Your task to perform on an android device: Add "razer thresher" to the cart on target.com, then select checkout. Image 0: 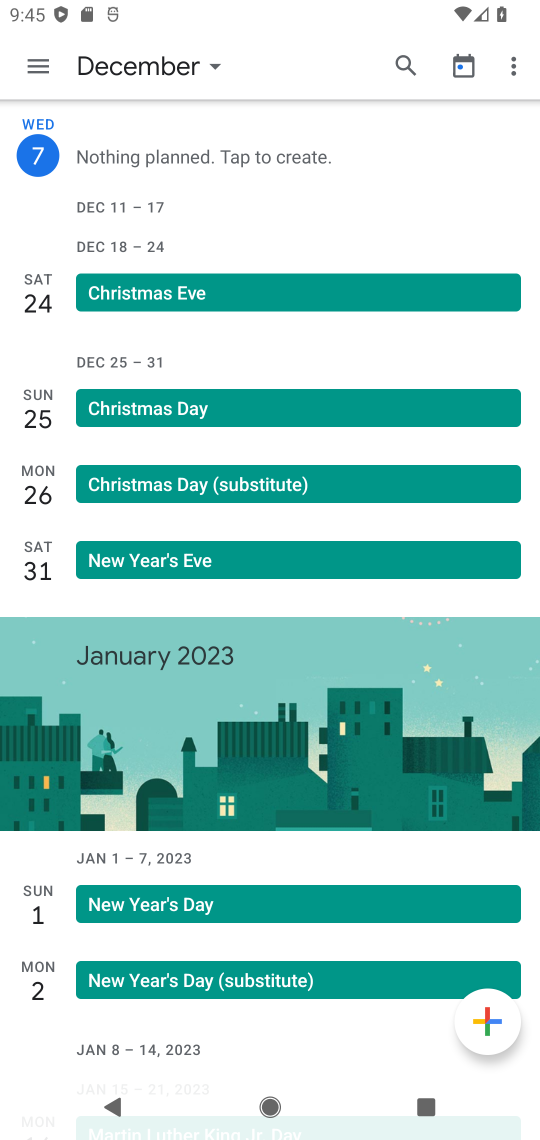
Step 0: press home button
Your task to perform on an android device: Add "razer thresher" to the cart on target.com, then select checkout. Image 1: 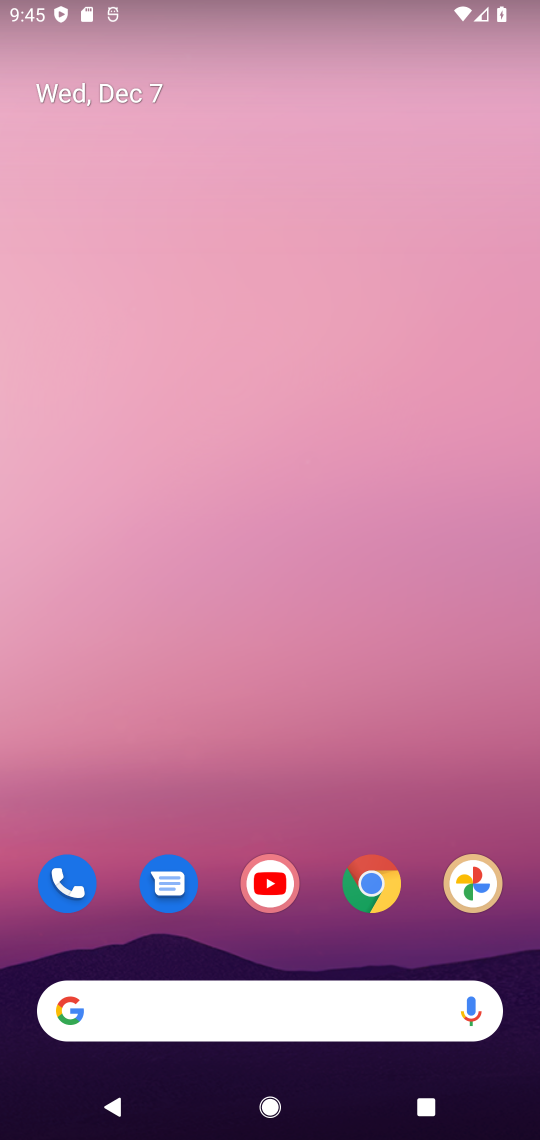
Step 1: click (296, 1025)
Your task to perform on an android device: Add "razer thresher" to the cart on target.com, then select checkout. Image 2: 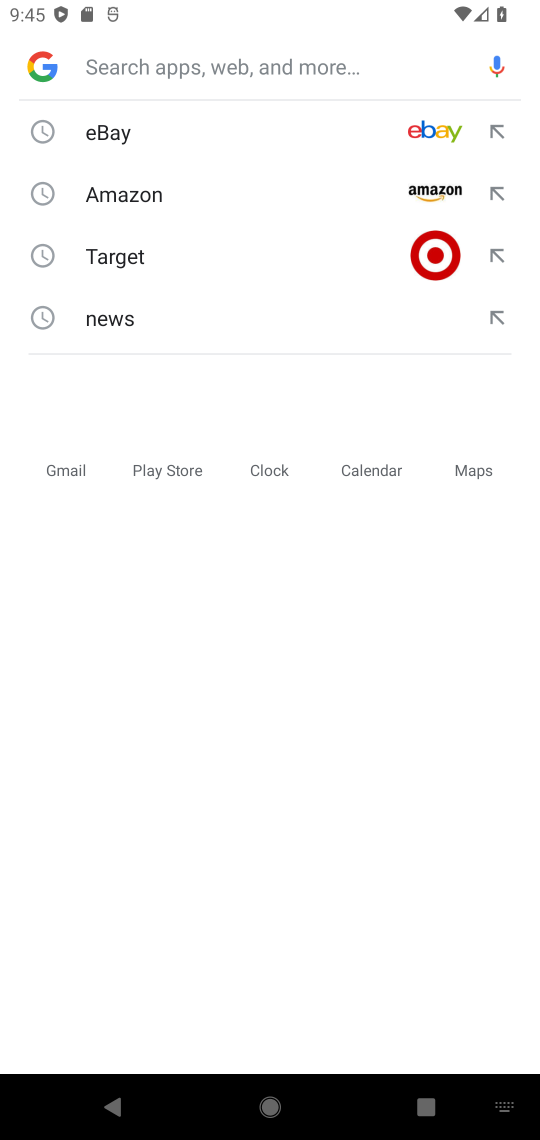
Step 2: click (148, 255)
Your task to perform on an android device: Add "razer thresher" to the cart on target.com, then select checkout. Image 3: 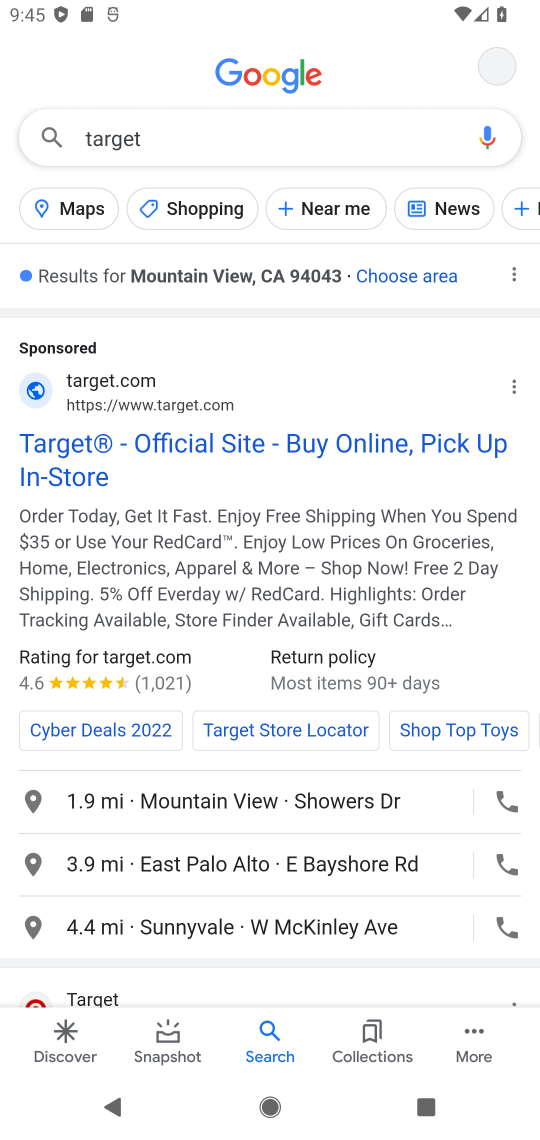
Step 3: click (167, 441)
Your task to perform on an android device: Add "razer thresher" to the cart on target.com, then select checkout. Image 4: 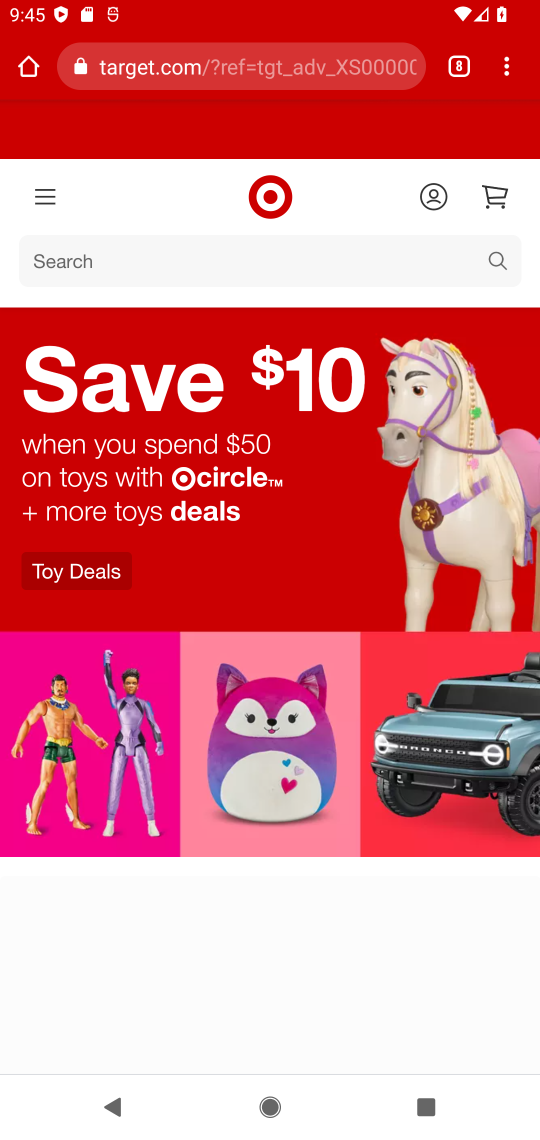
Step 4: click (225, 257)
Your task to perform on an android device: Add "razer thresher" to the cart on target.com, then select checkout. Image 5: 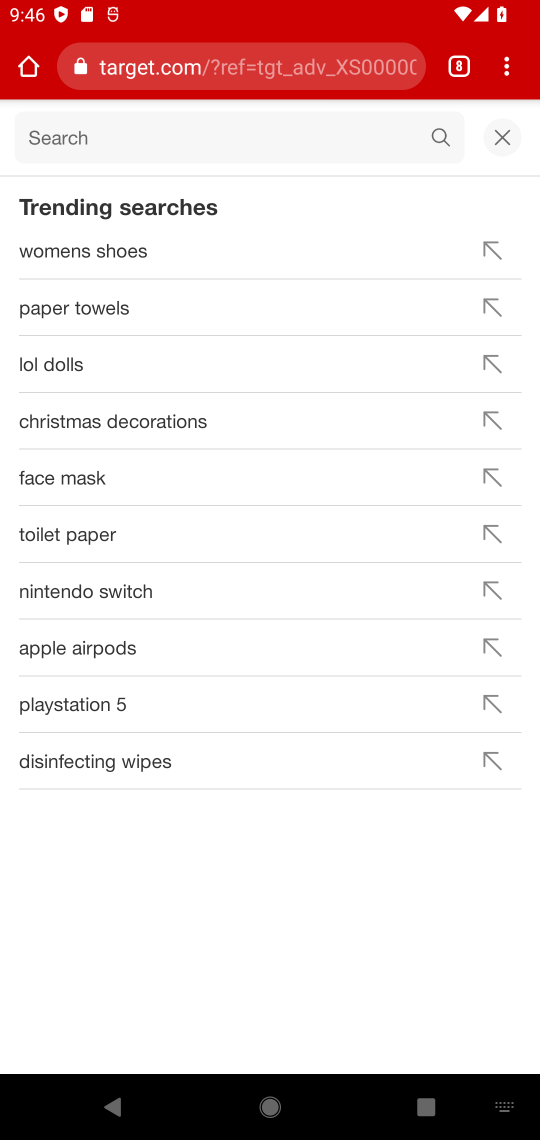
Step 5: type "razer thresher"
Your task to perform on an android device: Add "razer thresher" to the cart on target.com, then select checkout. Image 6: 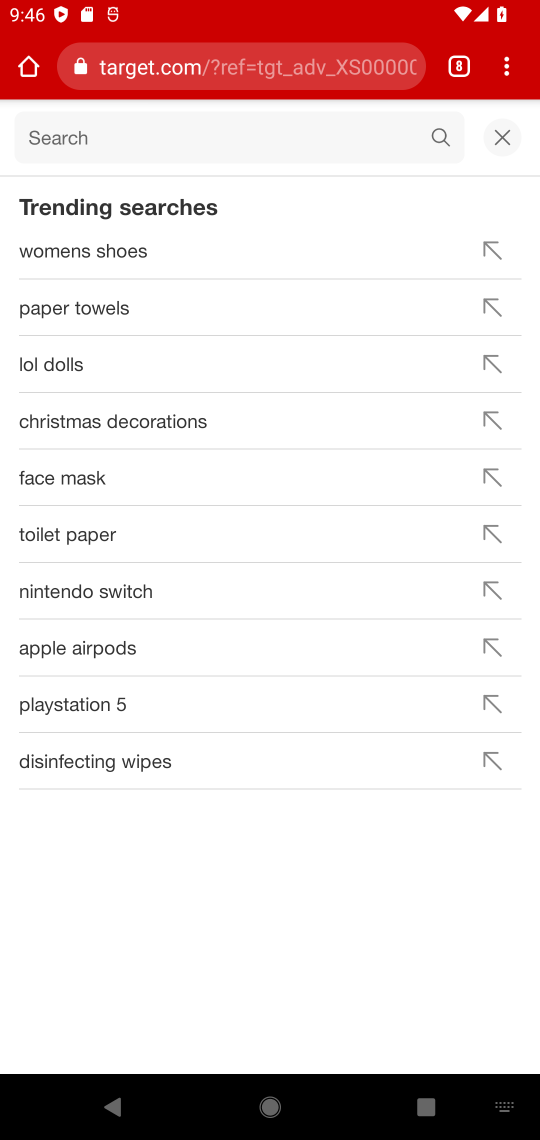
Step 6: click (435, 121)
Your task to perform on an android device: Add "razer thresher" to the cart on target.com, then select checkout. Image 7: 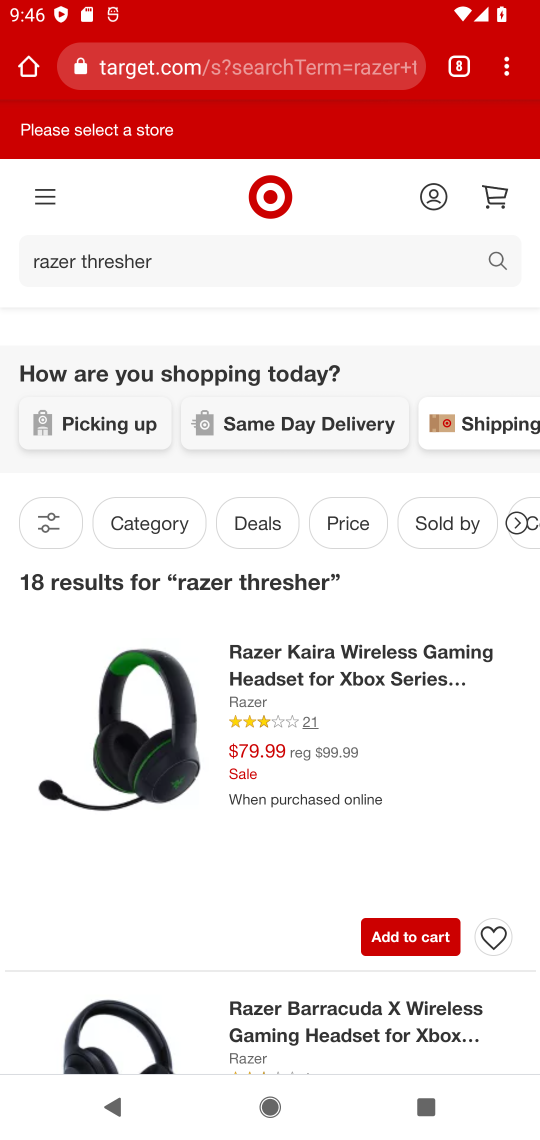
Step 7: click (391, 926)
Your task to perform on an android device: Add "razer thresher" to the cart on target.com, then select checkout. Image 8: 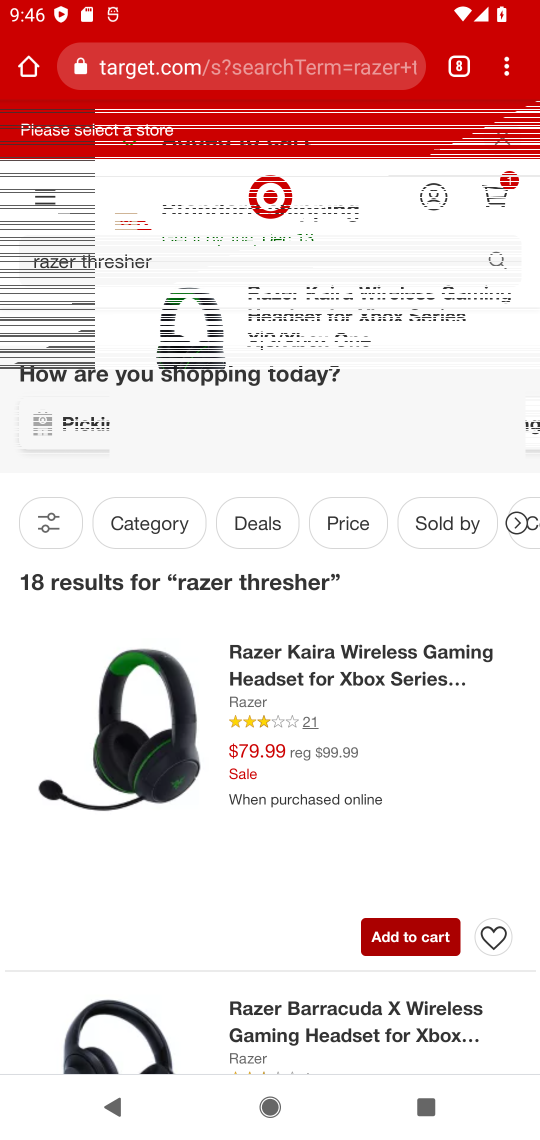
Step 8: click (504, 188)
Your task to perform on an android device: Add "razer thresher" to the cart on target.com, then select checkout. Image 9: 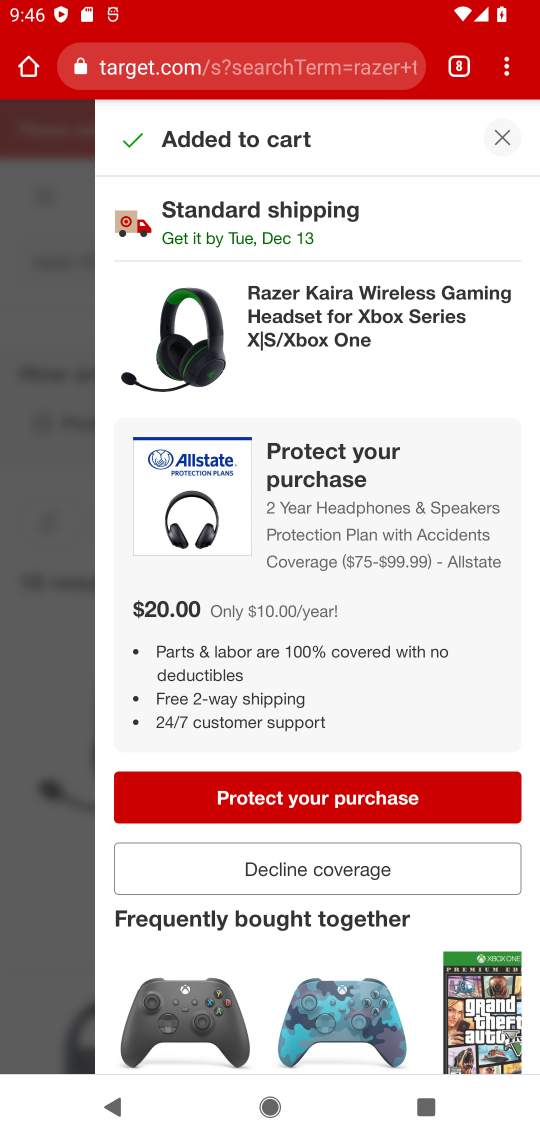
Step 9: click (494, 130)
Your task to perform on an android device: Add "razer thresher" to the cart on target.com, then select checkout. Image 10: 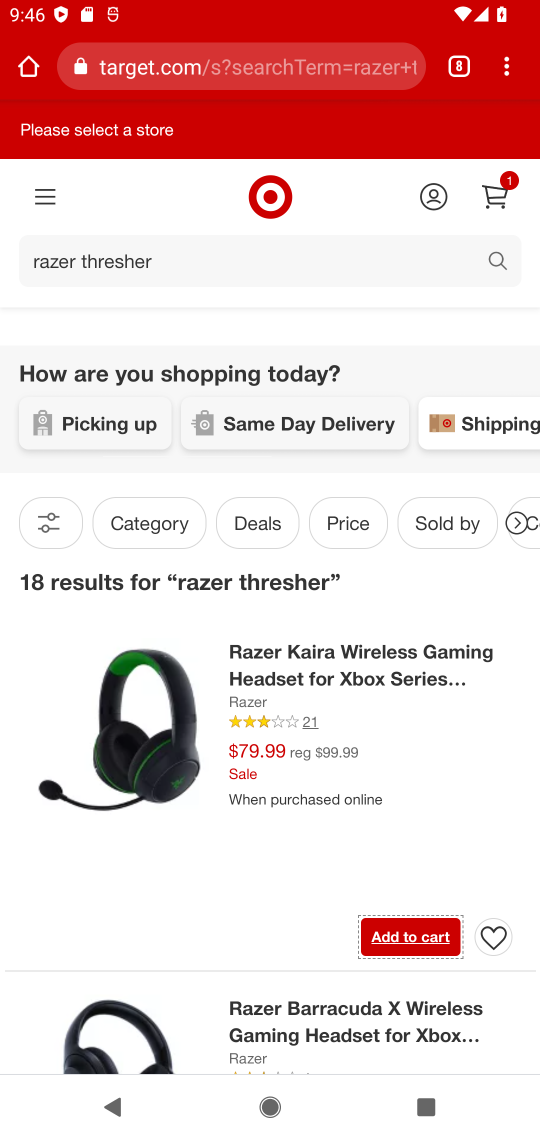
Step 10: click (504, 192)
Your task to perform on an android device: Add "razer thresher" to the cart on target.com, then select checkout. Image 11: 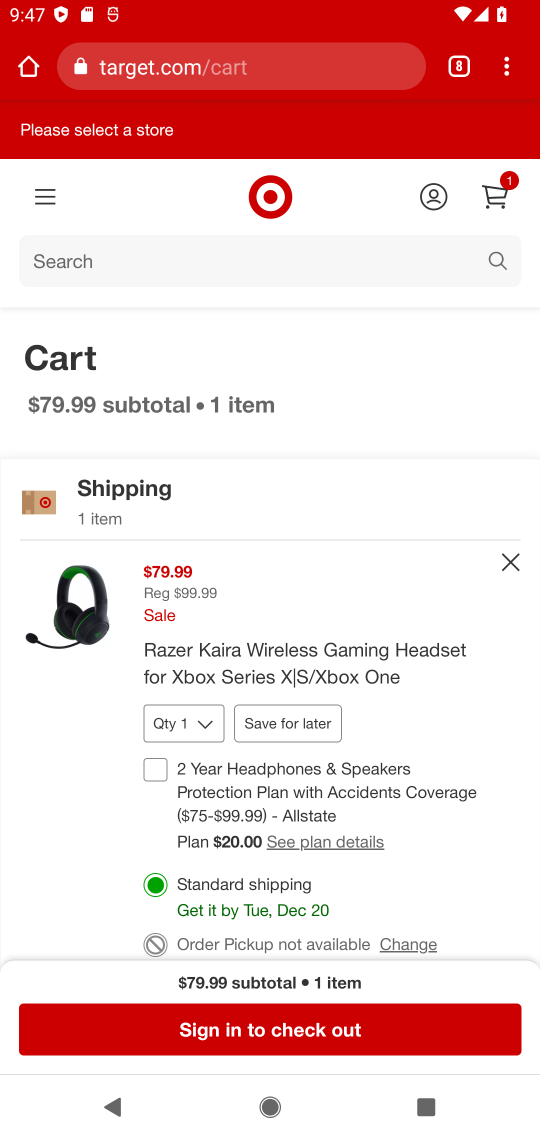
Step 11: click (249, 1030)
Your task to perform on an android device: Add "razer thresher" to the cart on target.com, then select checkout. Image 12: 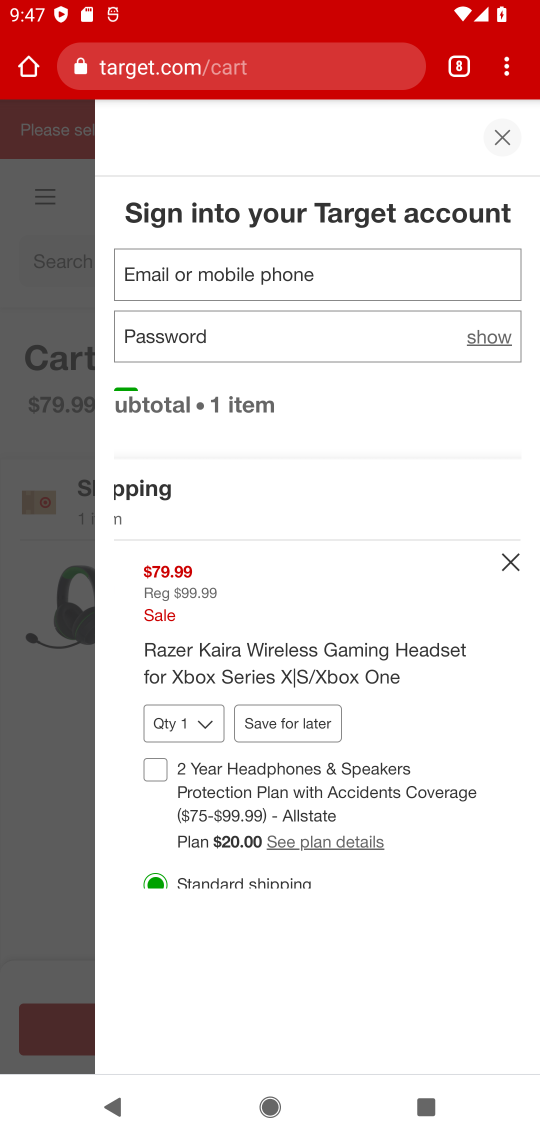
Step 12: task complete